Your task to perform on an android device: Go to Google Image 0: 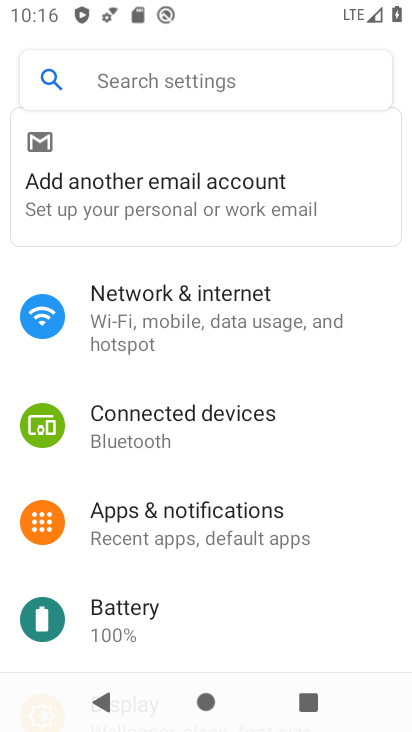
Step 0: press home button
Your task to perform on an android device: Go to Google Image 1: 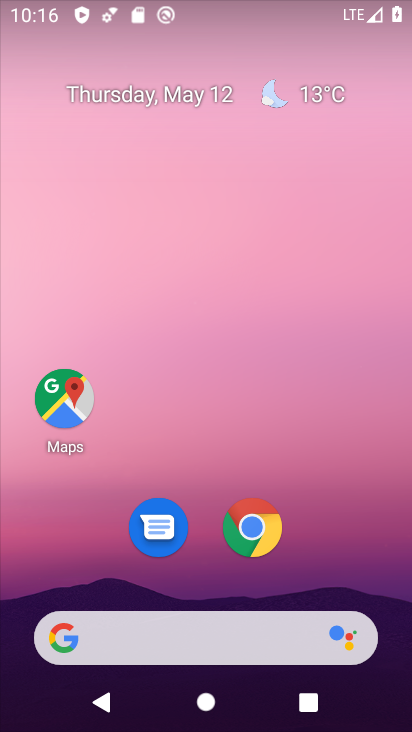
Step 1: click (200, 636)
Your task to perform on an android device: Go to Google Image 2: 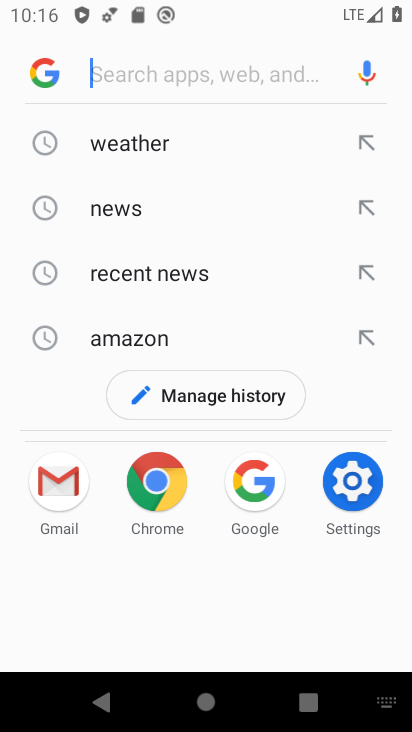
Step 2: click (180, 72)
Your task to perform on an android device: Go to Google Image 3: 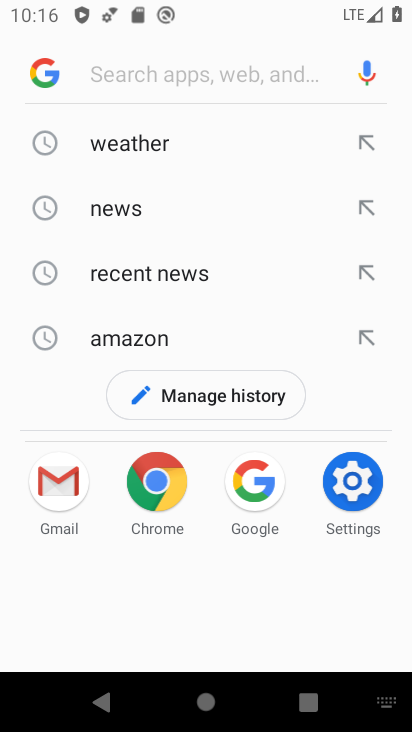
Step 3: type "Google"
Your task to perform on an android device: Go to Google Image 4: 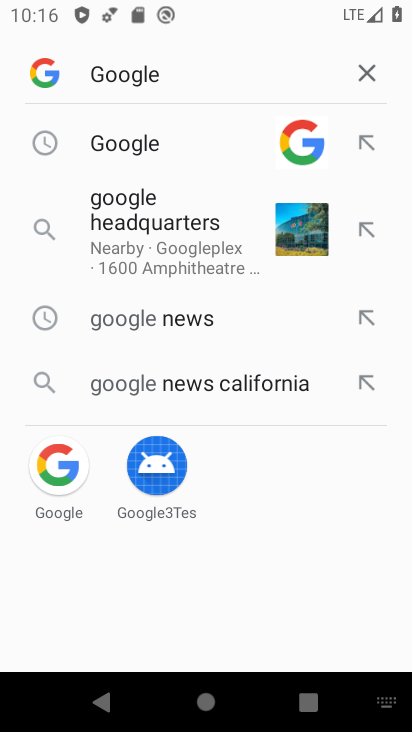
Step 4: click (150, 143)
Your task to perform on an android device: Go to Google Image 5: 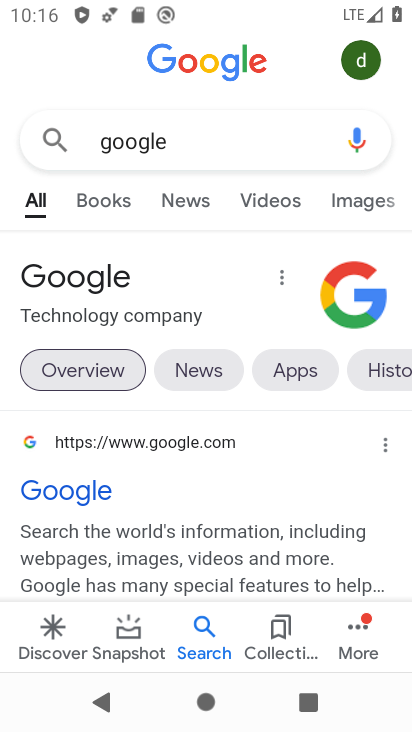
Step 5: click (71, 486)
Your task to perform on an android device: Go to Google Image 6: 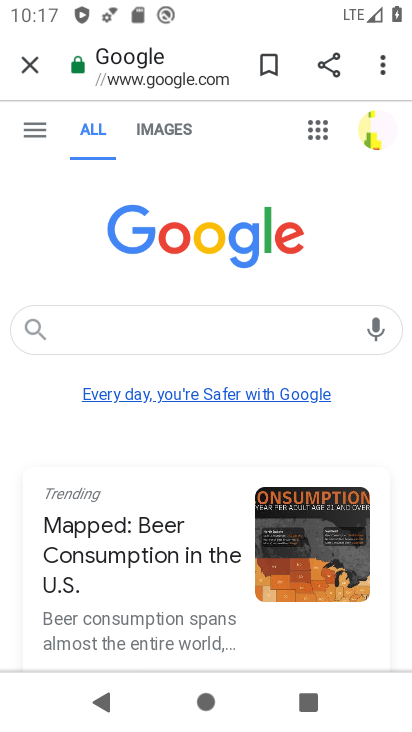
Step 6: task complete